Your task to perform on an android device: star an email in the gmail app Image 0: 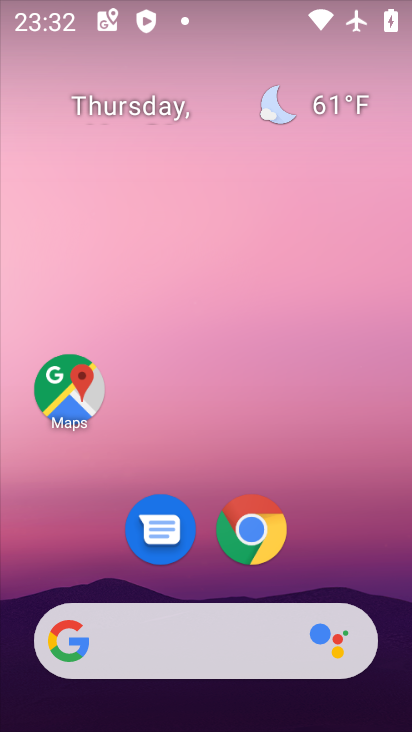
Step 0: drag from (387, 544) to (305, 170)
Your task to perform on an android device: star an email in the gmail app Image 1: 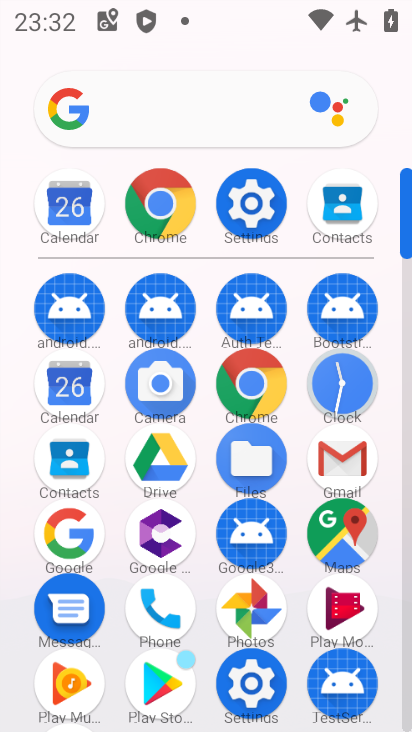
Step 1: click (336, 458)
Your task to perform on an android device: star an email in the gmail app Image 2: 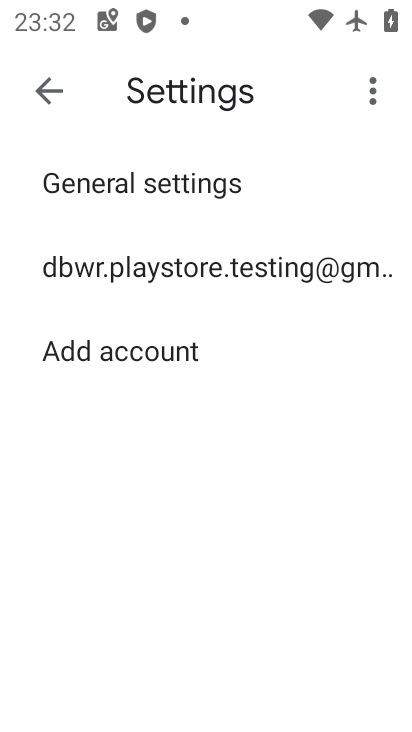
Step 2: click (55, 104)
Your task to perform on an android device: star an email in the gmail app Image 3: 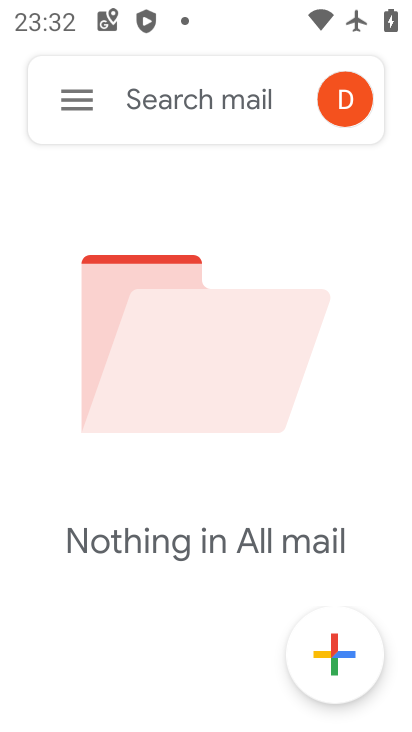
Step 3: click (55, 104)
Your task to perform on an android device: star an email in the gmail app Image 4: 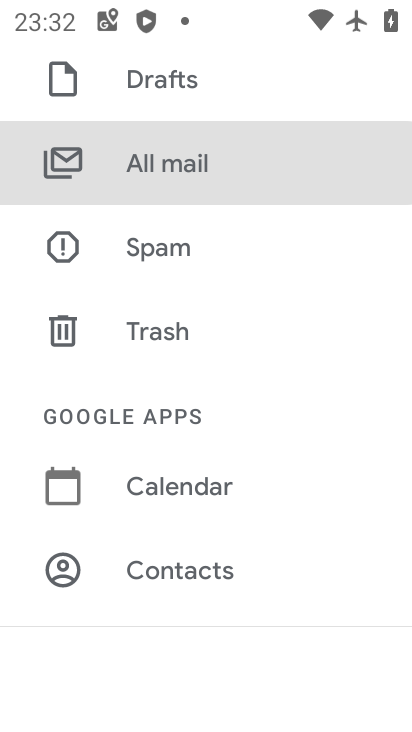
Step 4: task complete